Your task to perform on an android device: Show me popular games on the Play Store Image 0: 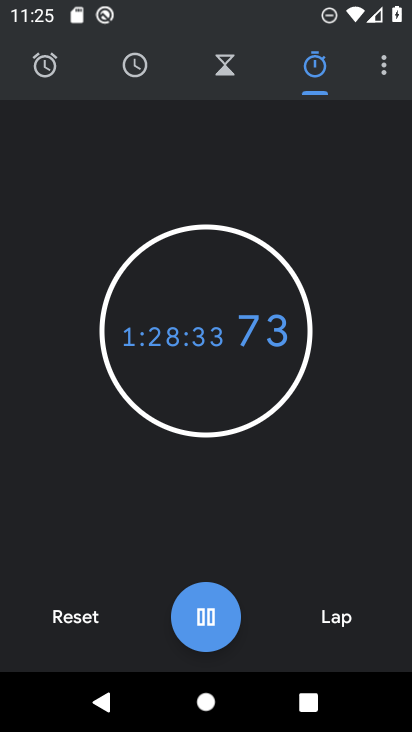
Step 0: press home button
Your task to perform on an android device: Show me popular games on the Play Store Image 1: 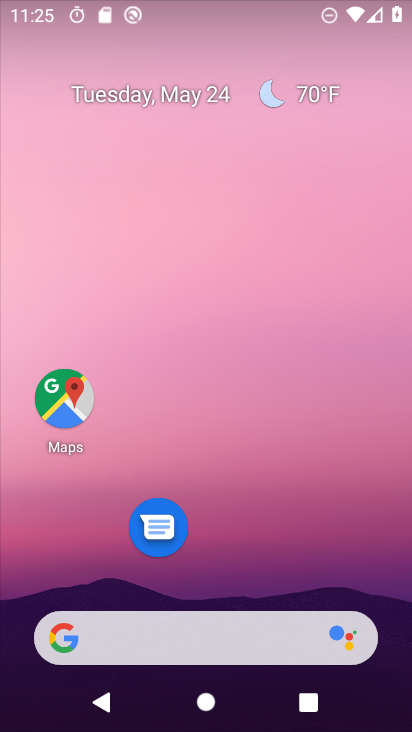
Step 1: drag from (266, 545) to (270, 126)
Your task to perform on an android device: Show me popular games on the Play Store Image 2: 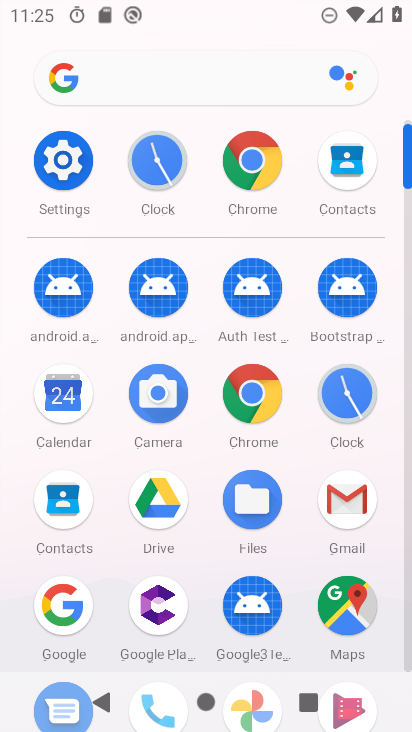
Step 2: drag from (187, 554) to (207, 286)
Your task to perform on an android device: Show me popular games on the Play Store Image 3: 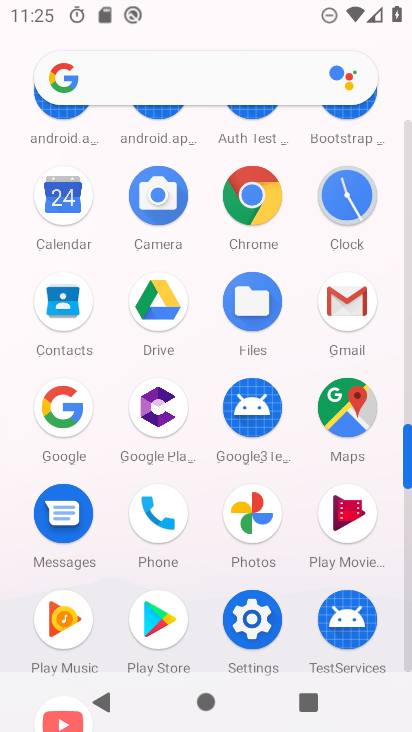
Step 3: click (163, 613)
Your task to perform on an android device: Show me popular games on the Play Store Image 4: 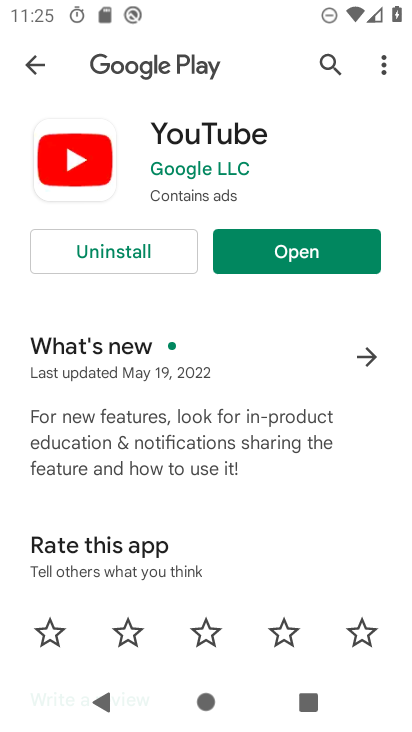
Step 4: press back button
Your task to perform on an android device: Show me popular games on the Play Store Image 5: 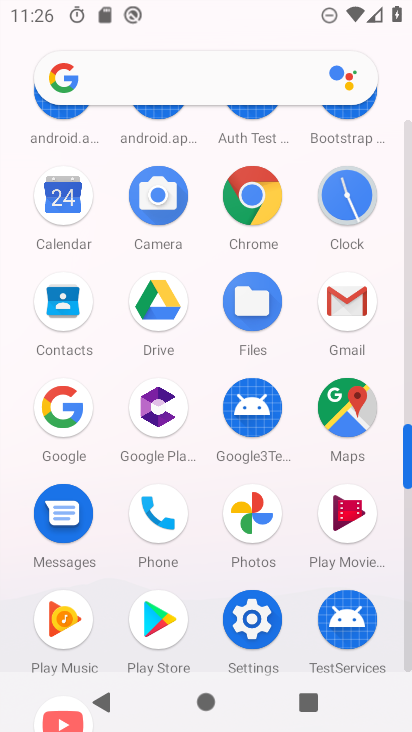
Step 5: click (169, 611)
Your task to perform on an android device: Show me popular games on the Play Store Image 6: 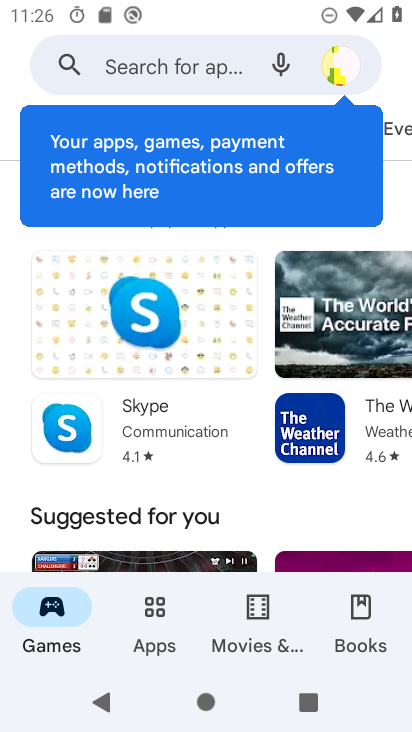
Step 6: drag from (218, 506) to (243, 121)
Your task to perform on an android device: Show me popular games on the Play Store Image 7: 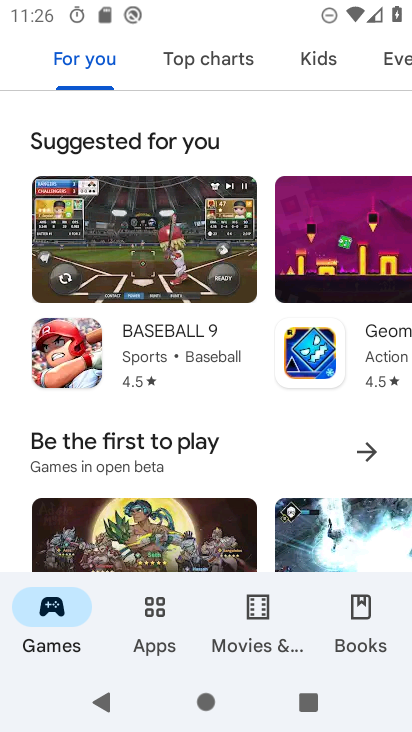
Step 7: drag from (272, 480) to (281, 91)
Your task to perform on an android device: Show me popular games on the Play Store Image 8: 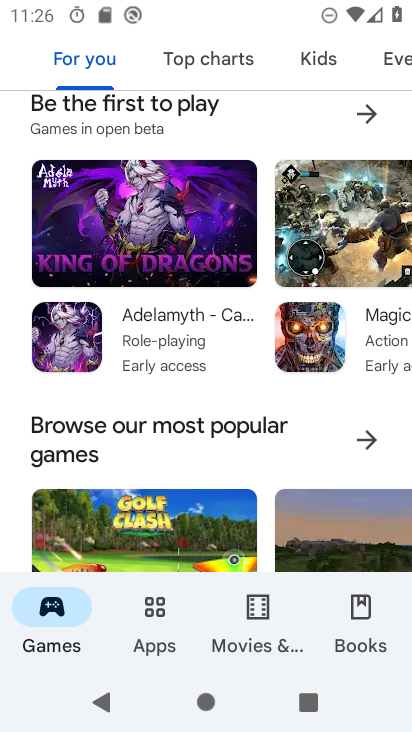
Step 8: click (262, 428)
Your task to perform on an android device: Show me popular games on the Play Store Image 9: 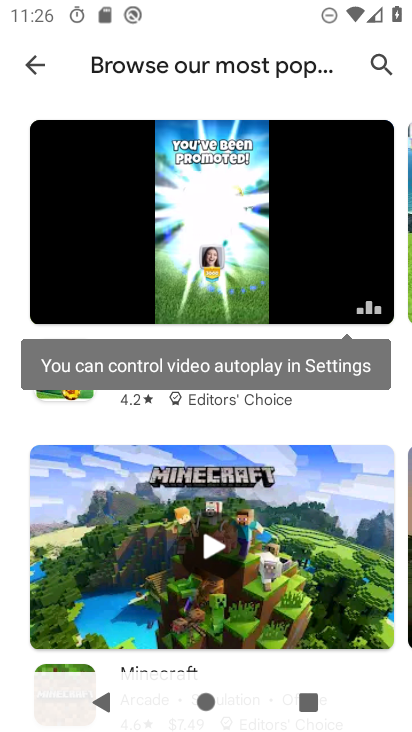
Step 9: task complete